Your task to perform on an android device: Open the calendar app, open the side menu, and click the "Day" option Image 0: 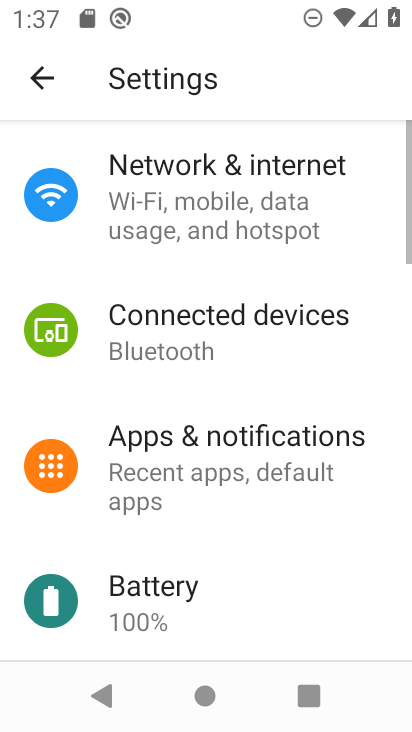
Step 0: press home button
Your task to perform on an android device: Open the calendar app, open the side menu, and click the "Day" option Image 1: 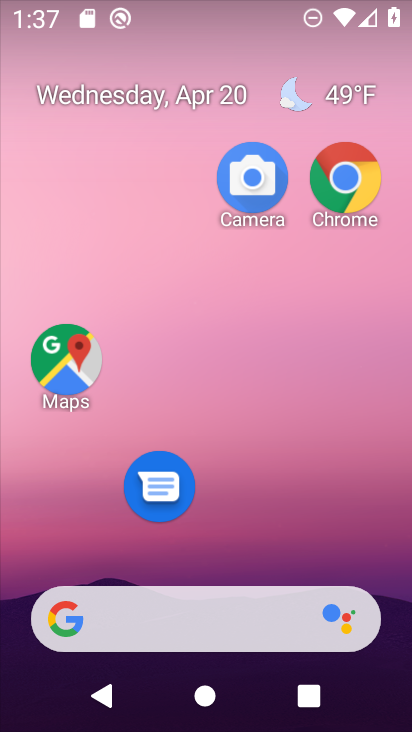
Step 1: drag from (304, 652) to (378, 208)
Your task to perform on an android device: Open the calendar app, open the side menu, and click the "Day" option Image 2: 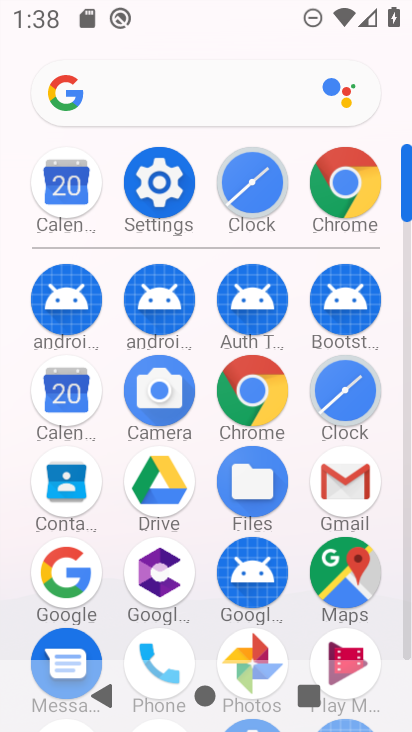
Step 2: click (76, 393)
Your task to perform on an android device: Open the calendar app, open the side menu, and click the "Day" option Image 3: 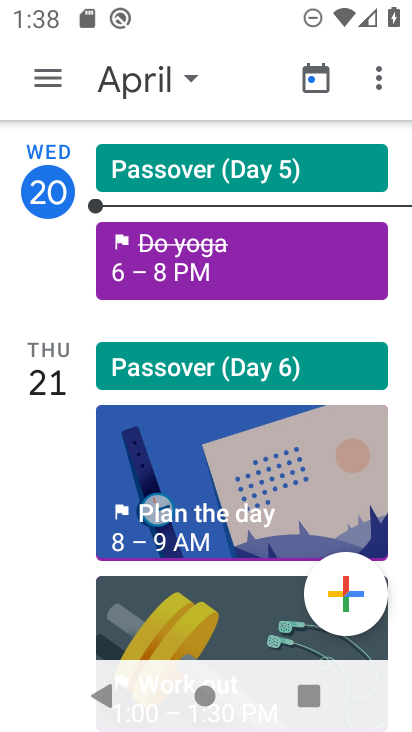
Step 3: click (60, 87)
Your task to perform on an android device: Open the calendar app, open the side menu, and click the "Day" option Image 4: 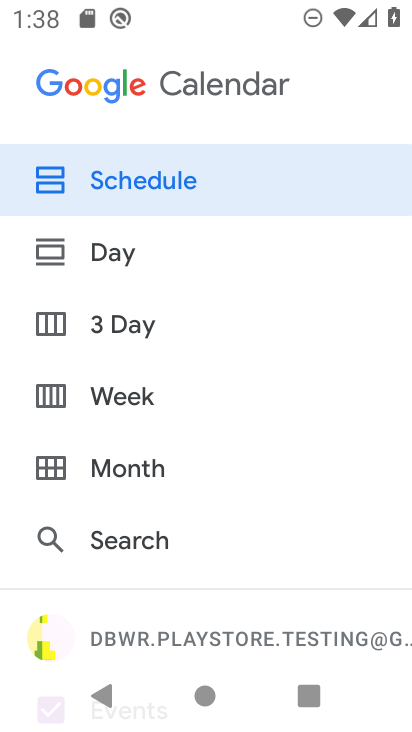
Step 4: click (110, 256)
Your task to perform on an android device: Open the calendar app, open the side menu, and click the "Day" option Image 5: 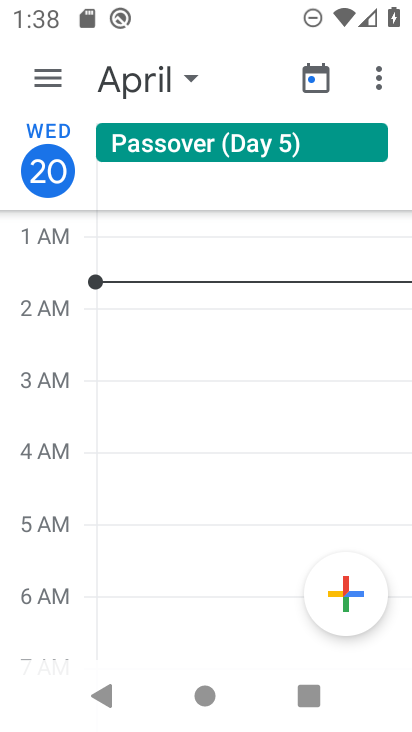
Step 5: task complete